Your task to perform on an android device: turn off location history Image 0: 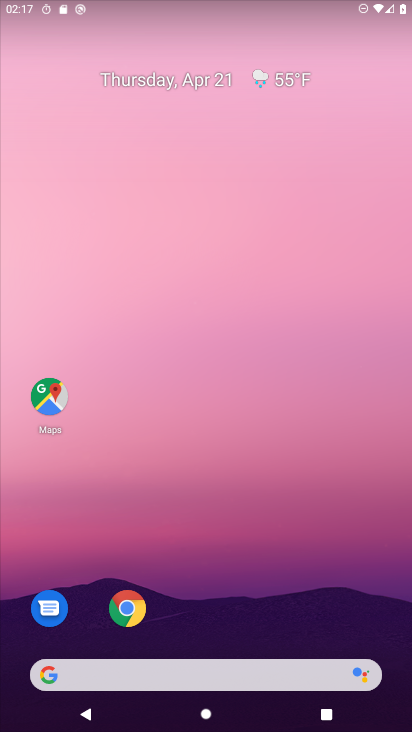
Step 0: drag from (198, 528) to (66, 68)
Your task to perform on an android device: turn off location history Image 1: 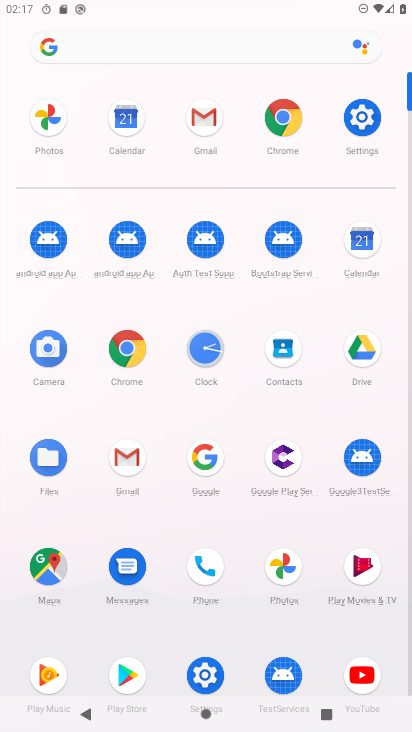
Step 1: click (371, 119)
Your task to perform on an android device: turn off location history Image 2: 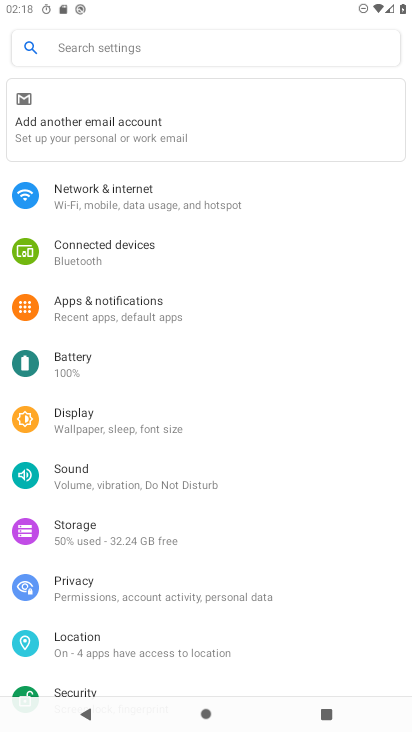
Step 2: click (94, 648)
Your task to perform on an android device: turn off location history Image 3: 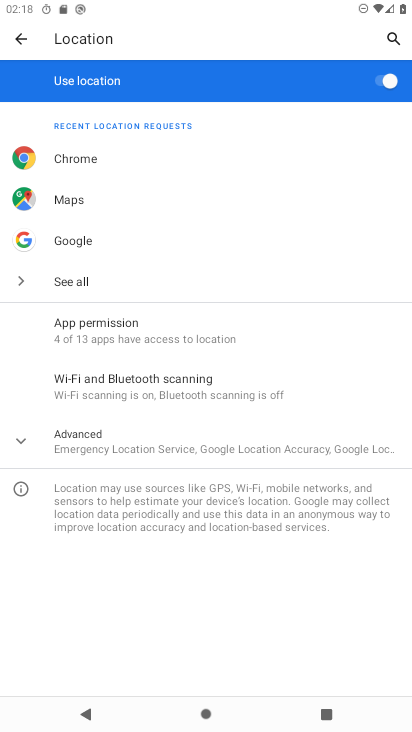
Step 3: click (161, 445)
Your task to perform on an android device: turn off location history Image 4: 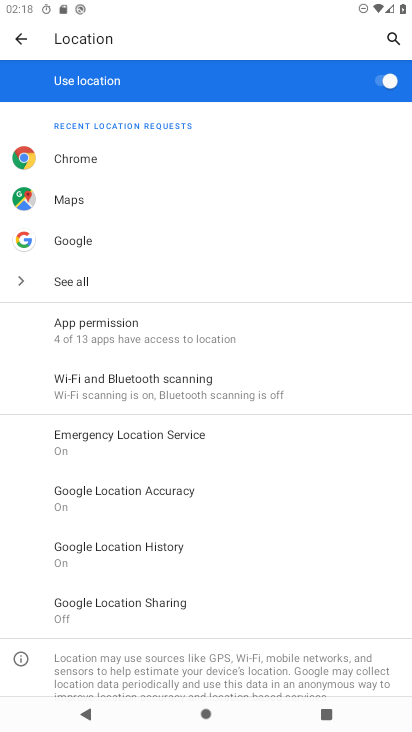
Step 4: click (140, 543)
Your task to perform on an android device: turn off location history Image 5: 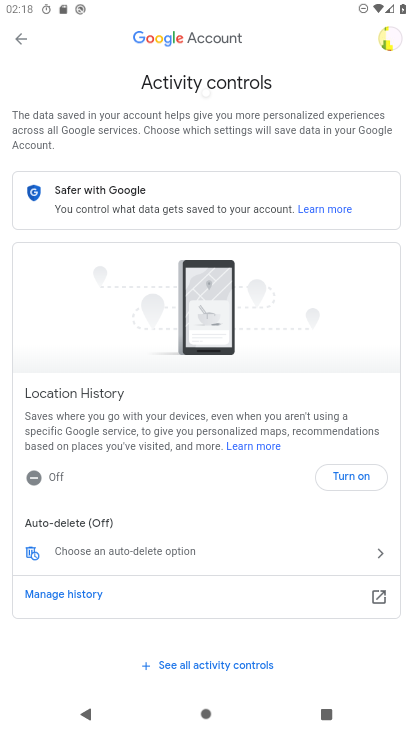
Step 5: click (35, 474)
Your task to perform on an android device: turn off location history Image 6: 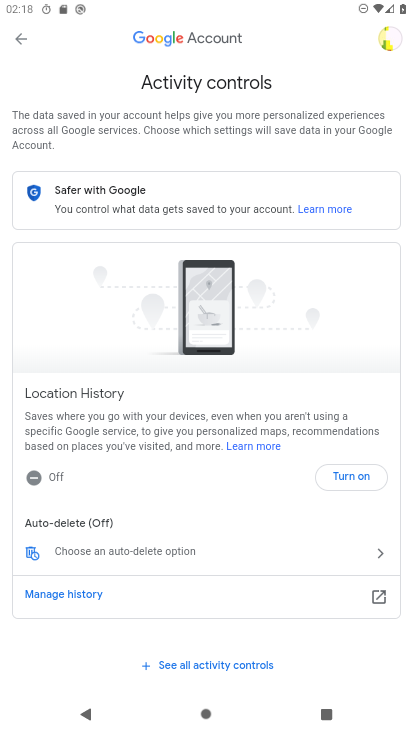
Step 6: click (35, 474)
Your task to perform on an android device: turn off location history Image 7: 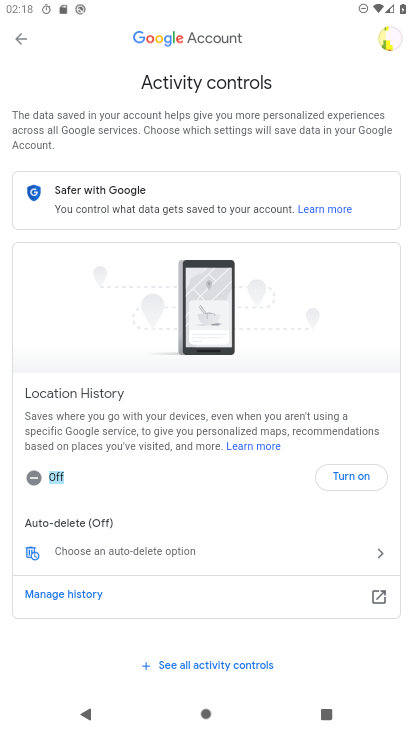
Step 7: click (59, 475)
Your task to perform on an android device: turn off location history Image 8: 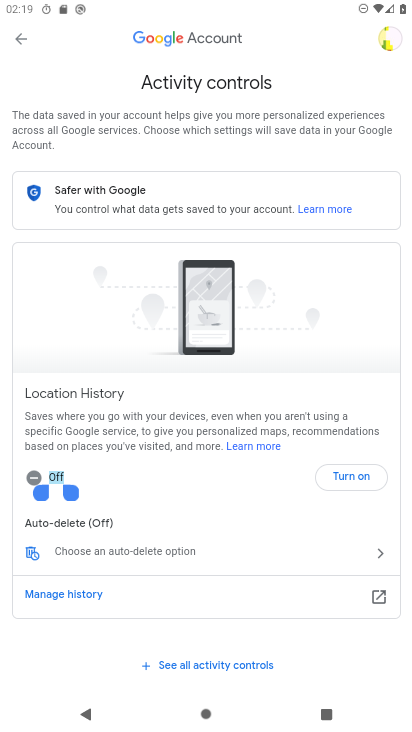
Step 8: click (37, 473)
Your task to perform on an android device: turn off location history Image 9: 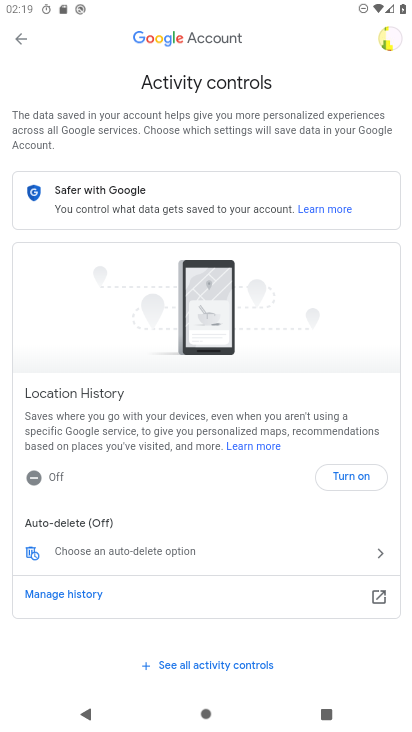
Step 9: click (59, 477)
Your task to perform on an android device: turn off location history Image 10: 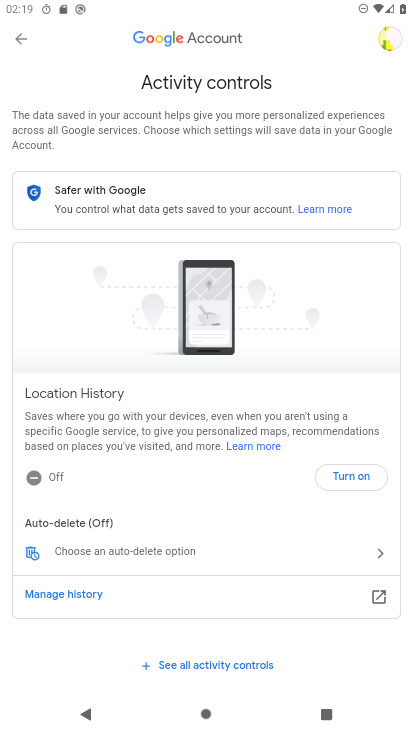
Step 10: click (59, 477)
Your task to perform on an android device: turn off location history Image 11: 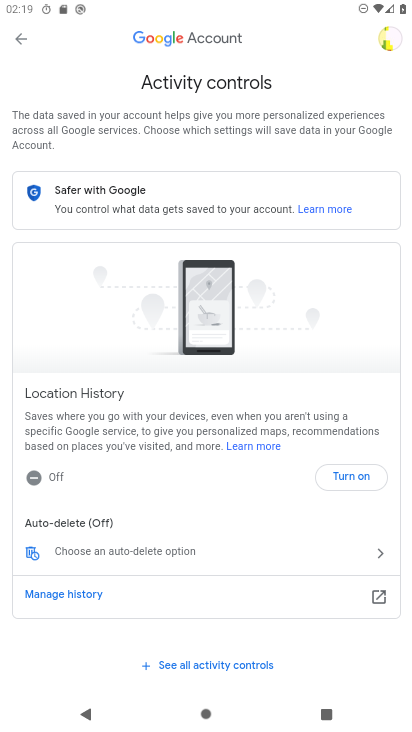
Step 11: task complete